Your task to perform on an android device: turn on javascript in the chrome app Image 0: 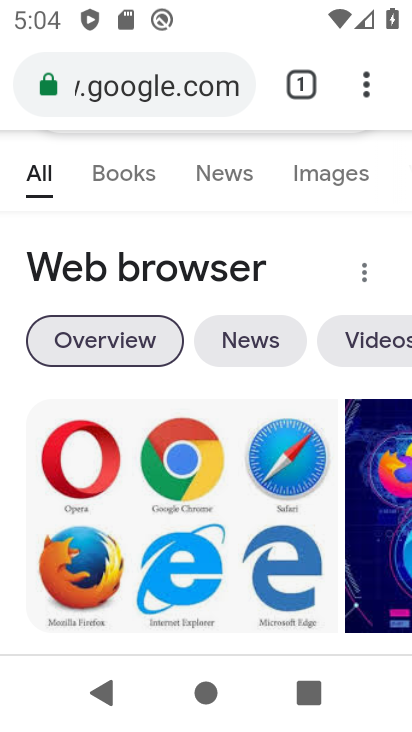
Step 0: press home button
Your task to perform on an android device: turn on javascript in the chrome app Image 1: 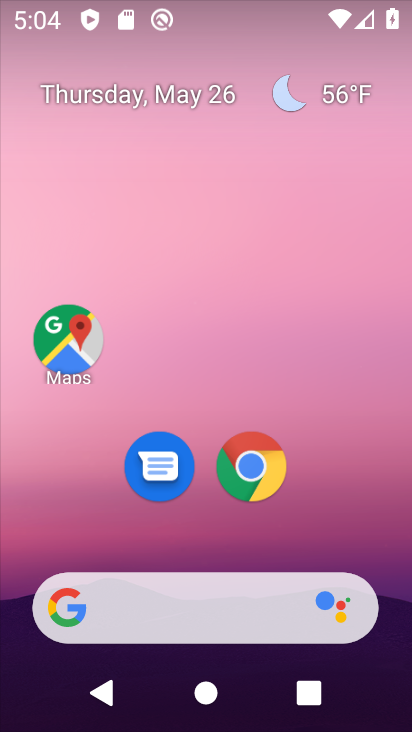
Step 1: click (261, 467)
Your task to perform on an android device: turn on javascript in the chrome app Image 2: 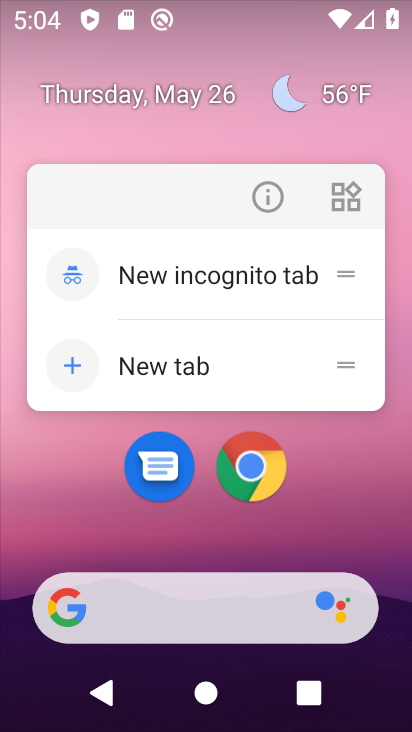
Step 2: click (255, 459)
Your task to perform on an android device: turn on javascript in the chrome app Image 3: 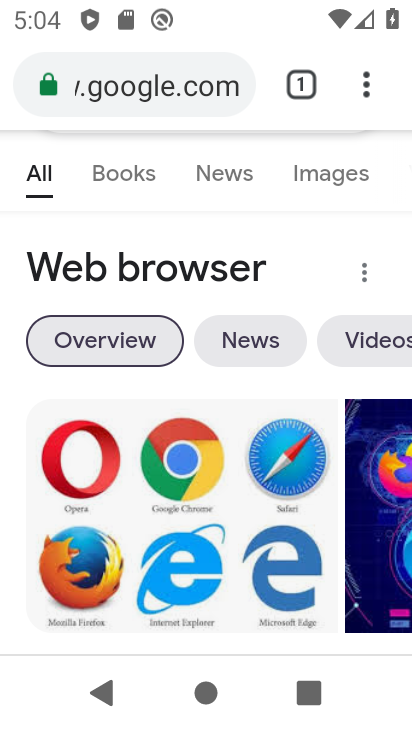
Step 3: drag from (368, 77) to (183, 527)
Your task to perform on an android device: turn on javascript in the chrome app Image 4: 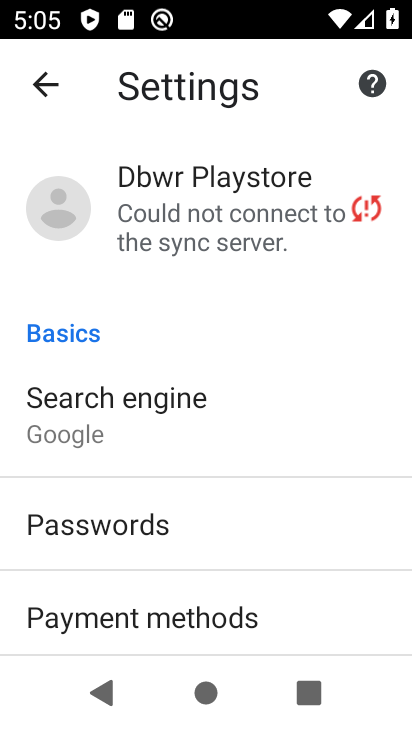
Step 4: drag from (305, 613) to (379, 232)
Your task to perform on an android device: turn on javascript in the chrome app Image 5: 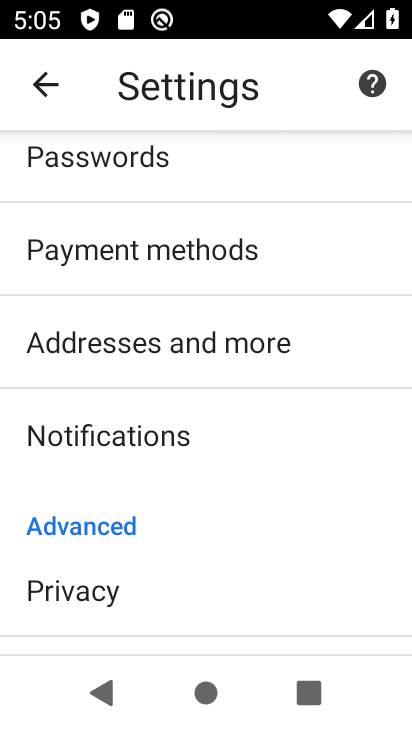
Step 5: drag from (301, 532) to (358, 284)
Your task to perform on an android device: turn on javascript in the chrome app Image 6: 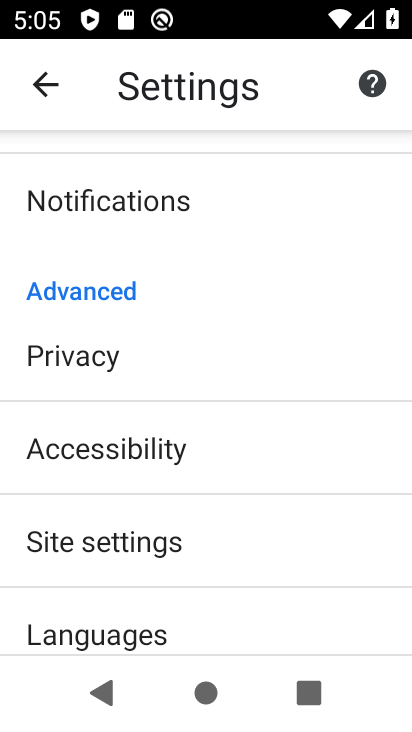
Step 6: click (138, 541)
Your task to perform on an android device: turn on javascript in the chrome app Image 7: 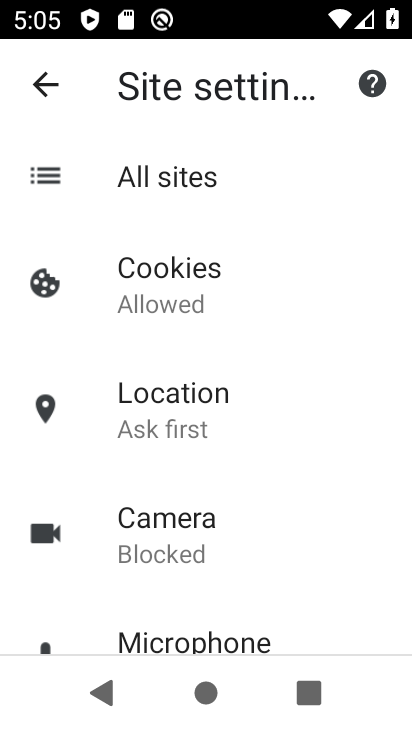
Step 7: drag from (256, 535) to (290, 227)
Your task to perform on an android device: turn on javascript in the chrome app Image 8: 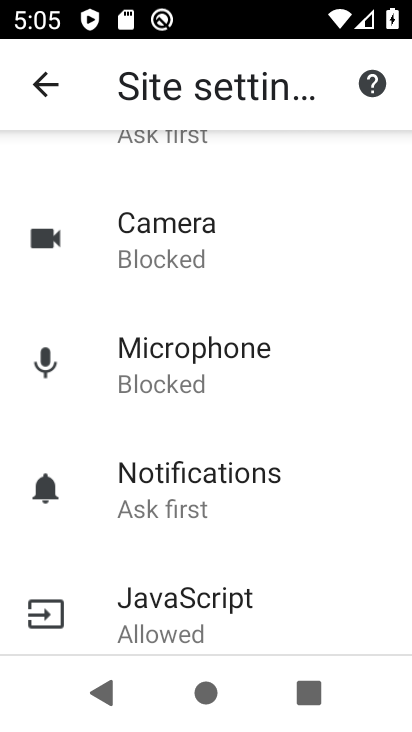
Step 8: click (198, 593)
Your task to perform on an android device: turn on javascript in the chrome app Image 9: 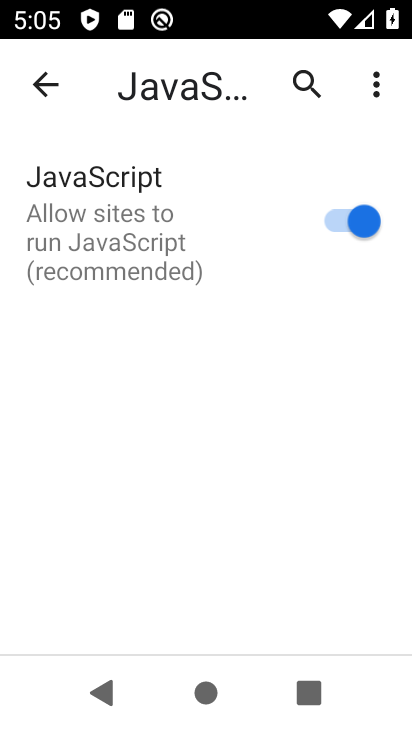
Step 9: task complete